Your task to perform on an android device: open chrome and create a bookmark for the current page Image 0: 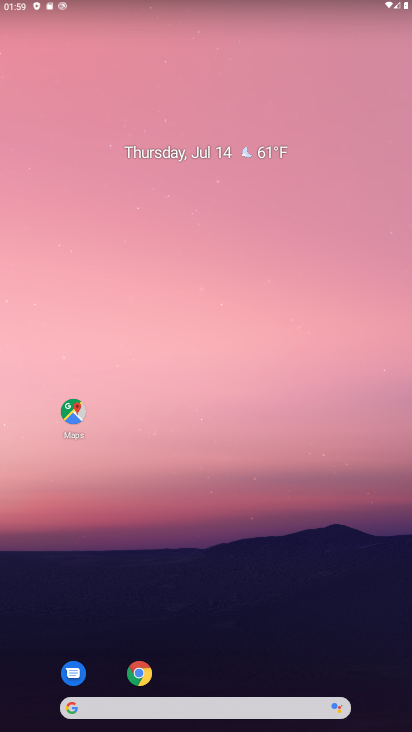
Step 0: click (140, 681)
Your task to perform on an android device: open chrome and create a bookmark for the current page Image 1: 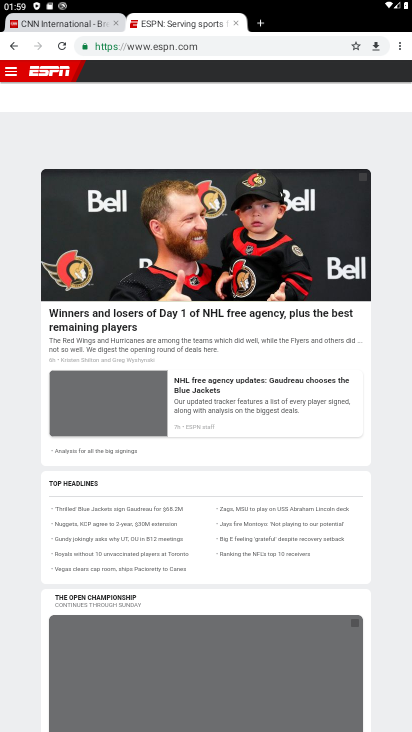
Step 1: click (347, 48)
Your task to perform on an android device: open chrome and create a bookmark for the current page Image 2: 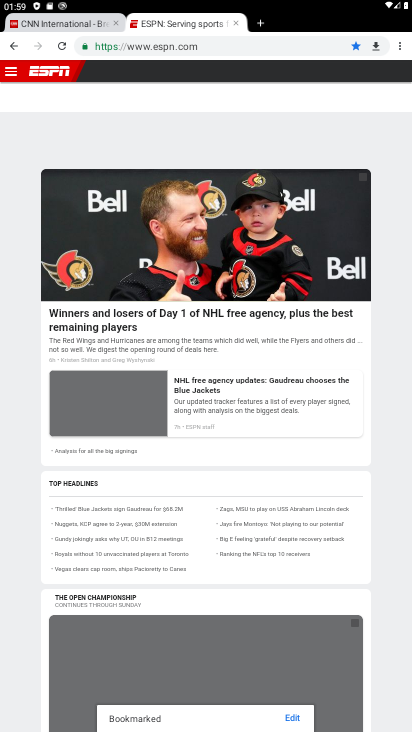
Step 2: task complete